Your task to perform on an android device: set default search engine in the chrome app Image 0: 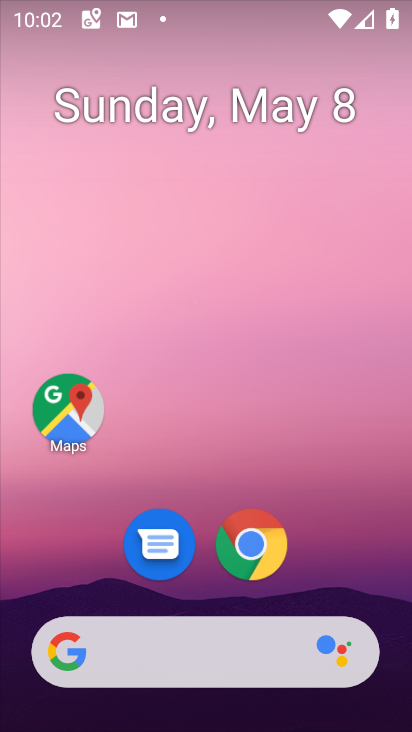
Step 0: click (261, 566)
Your task to perform on an android device: set default search engine in the chrome app Image 1: 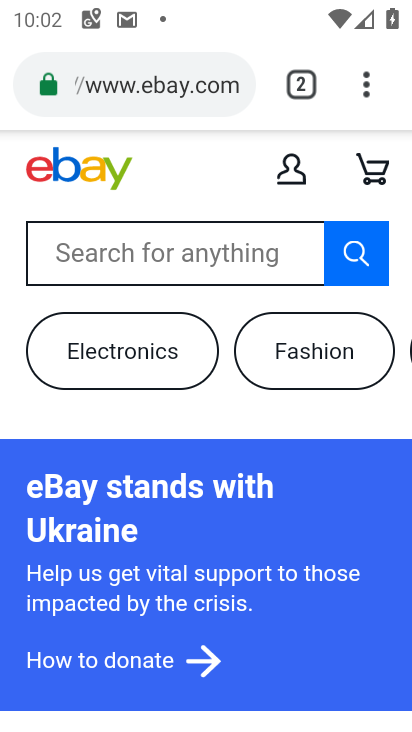
Step 1: click (352, 84)
Your task to perform on an android device: set default search engine in the chrome app Image 2: 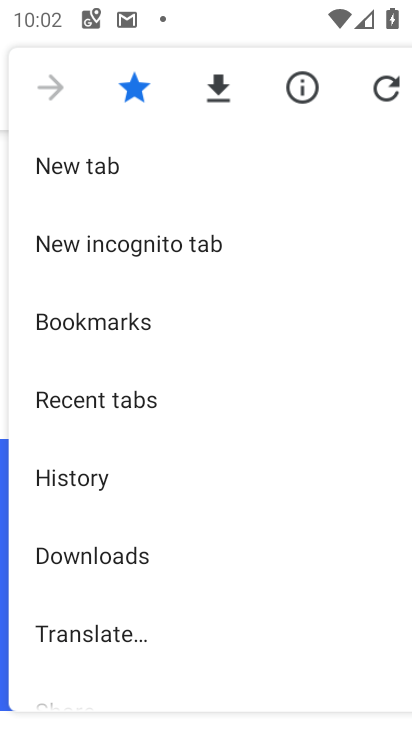
Step 2: drag from (154, 602) to (178, 215)
Your task to perform on an android device: set default search engine in the chrome app Image 3: 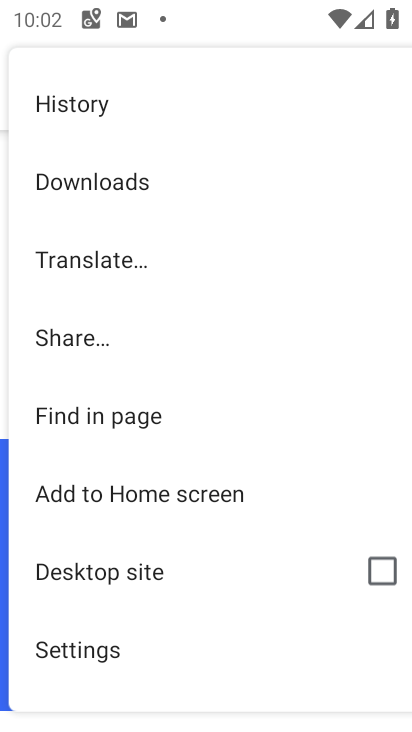
Step 3: click (145, 632)
Your task to perform on an android device: set default search engine in the chrome app Image 4: 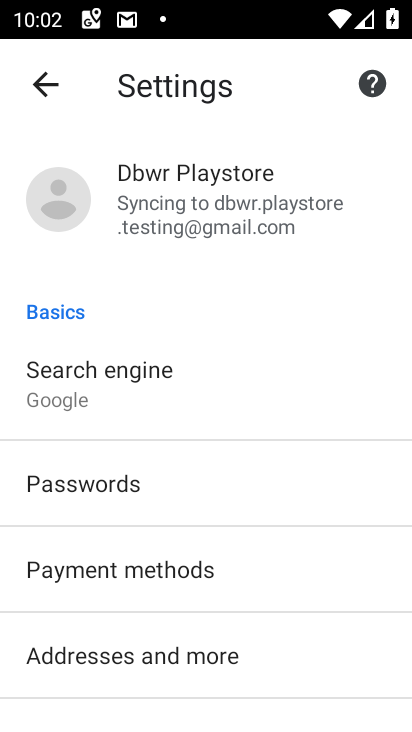
Step 4: click (167, 367)
Your task to perform on an android device: set default search engine in the chrome app Image 5: 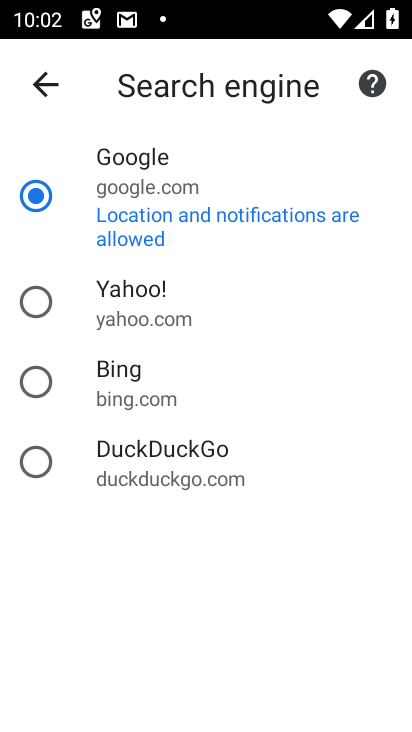
Step 5: click (148, 293)
Your task to perform on an android device: set default search engine in the chrome app Image 6: 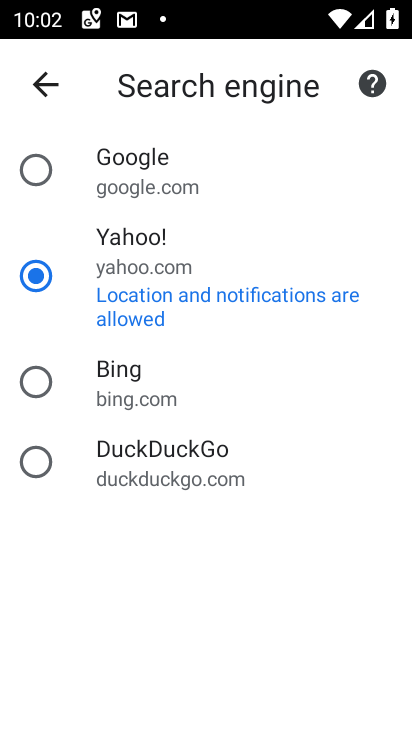
Step 6: task complete